Your task to perform on an android device: Go to battery settings Image 0: 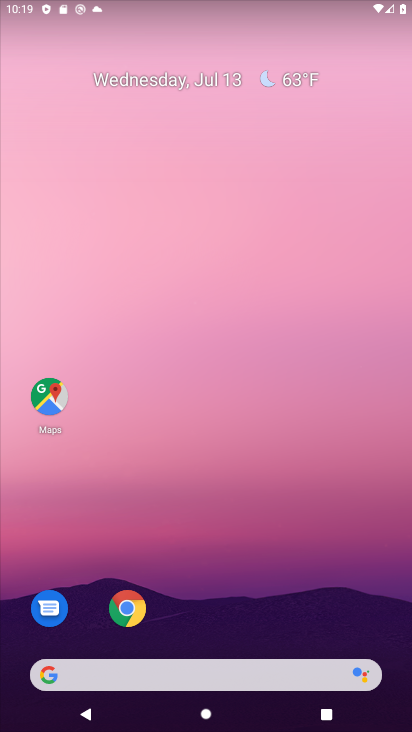
Step 0: drag from (221, 634) to (319, 6)
Your task to perform on an android device: Go to battery settings Image 1: 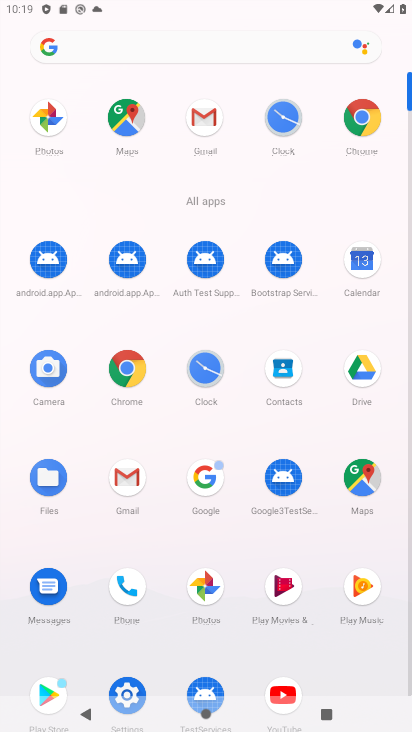
Step 1: click (122, 672)
Your task to perform on an android device: Go to battery settings Image 2: 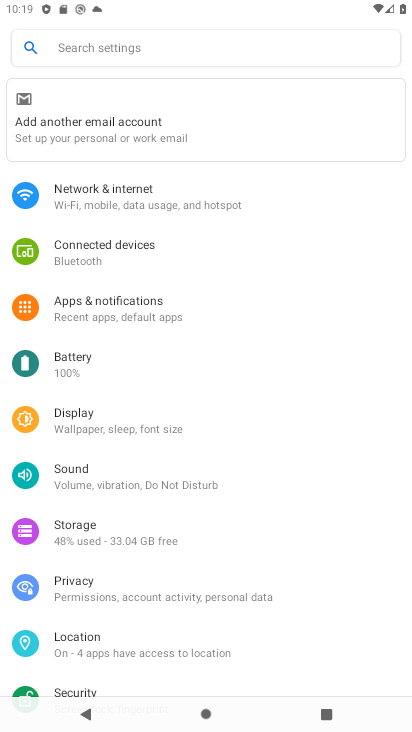
Step 2: click (129, 366)
Your task to perform on an android device: Go to battery settings Image 3: 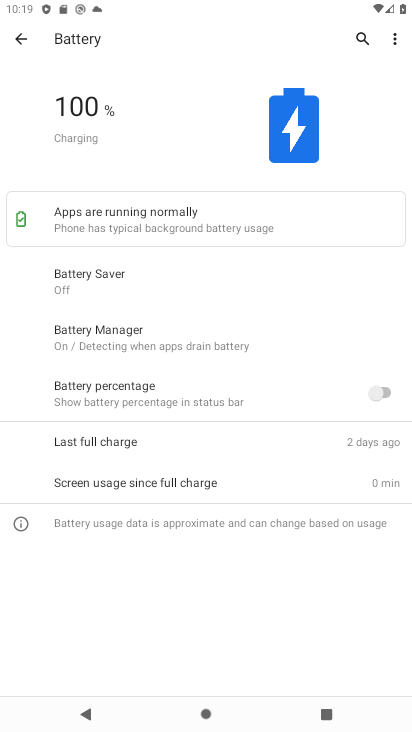
Step 3: task complete